Your task to perform on an android device: Open display settings Image 0: 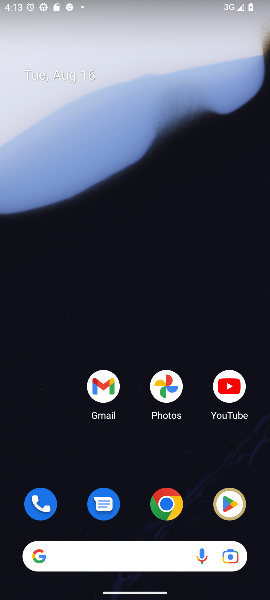
Step 0: drag from (135, 501) to (94, 174)
Your task to perform on an android device: Open display settings Image 1: 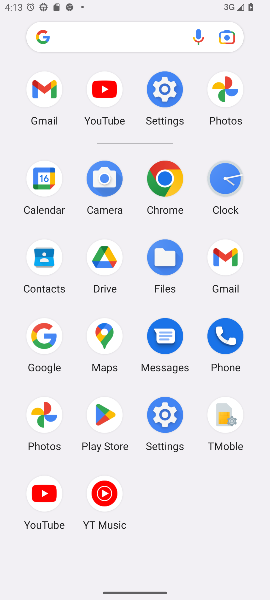
Step 1: click (161, 82)
Your task to perform on an android device: Open display settings Image 2: 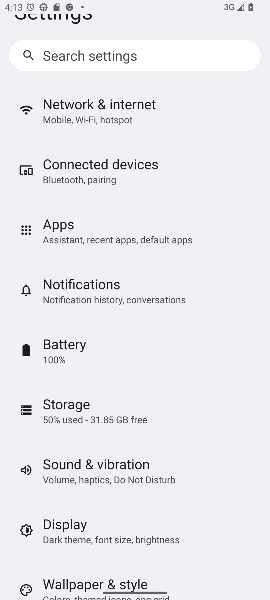
Step 2: click (64, 527)
Your task to perform on an android device: Open display settings Image 3: 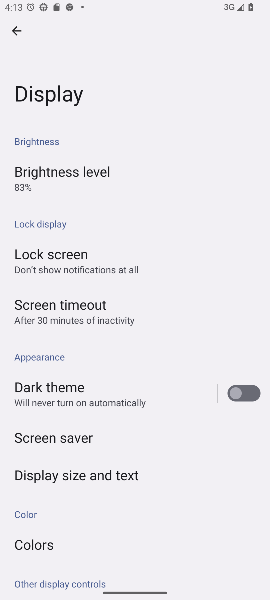
Step 3: task complete